Your task to perform on an android device: turn off wifi Image 0: 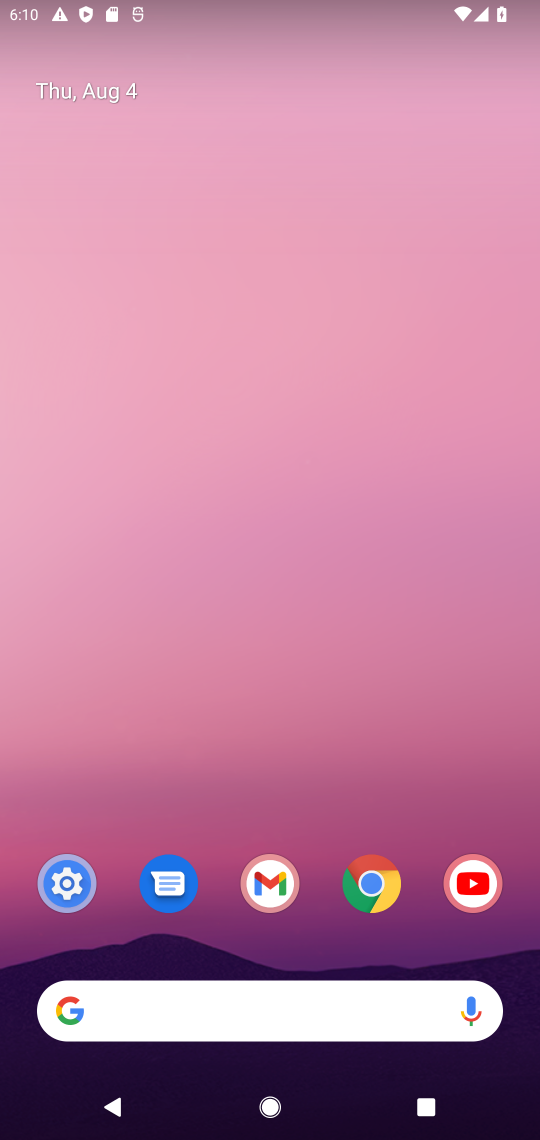
Step 0: click (53, 879)
Your task to perform on an android device: turn off wifi Image 1: 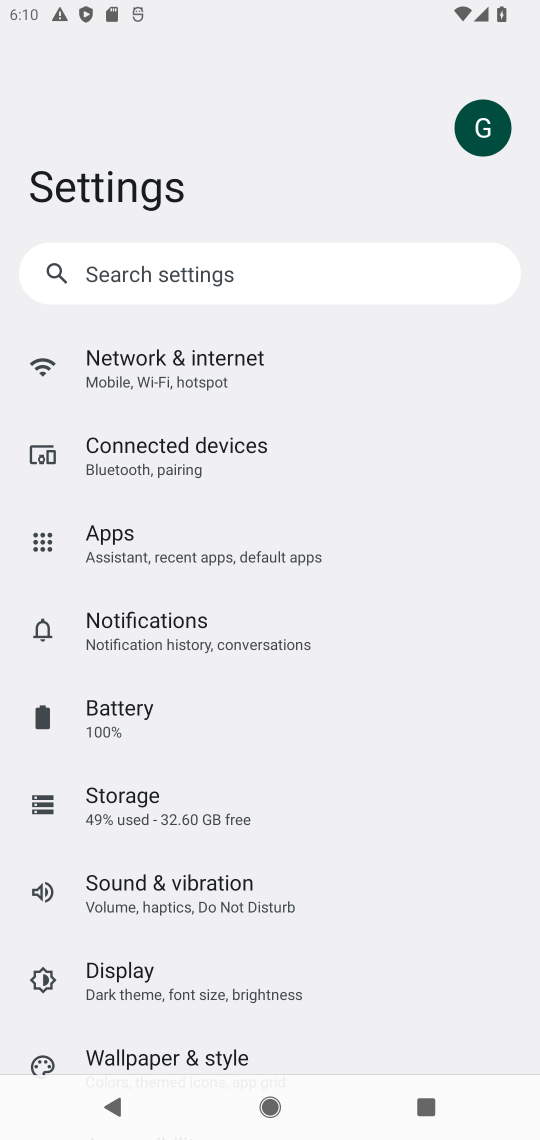
Step 1: click (281, 372)
Your task to perform on an android device: turn off wifi Image 2: 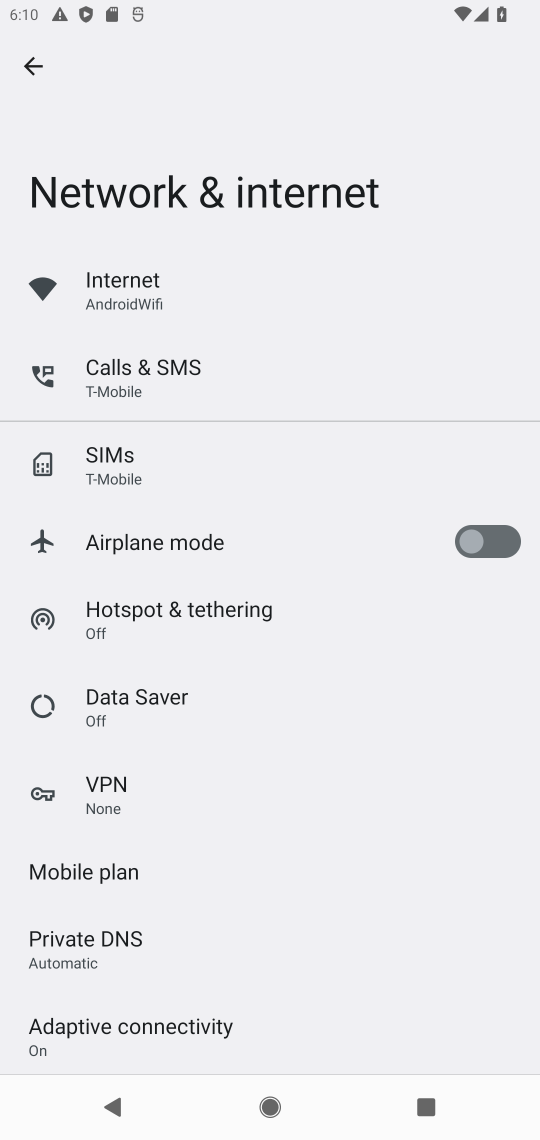
Step 2: click (172, 297)
Your task to perform on an android device: turn off wifi Image 3: 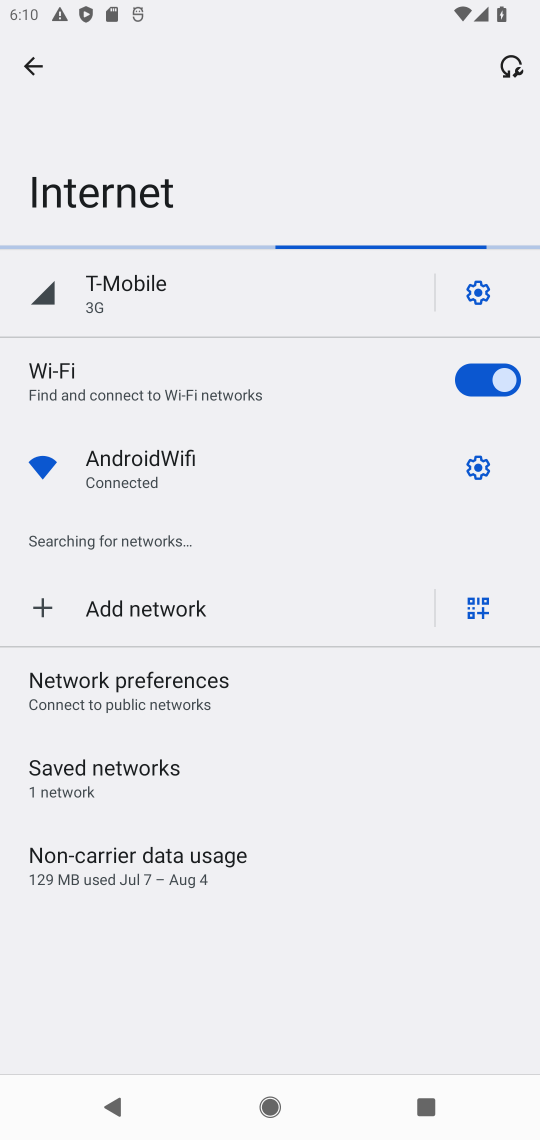
Step 3: click (466, 396)
Your task to perform on an android device: turn off wifi Image 4: 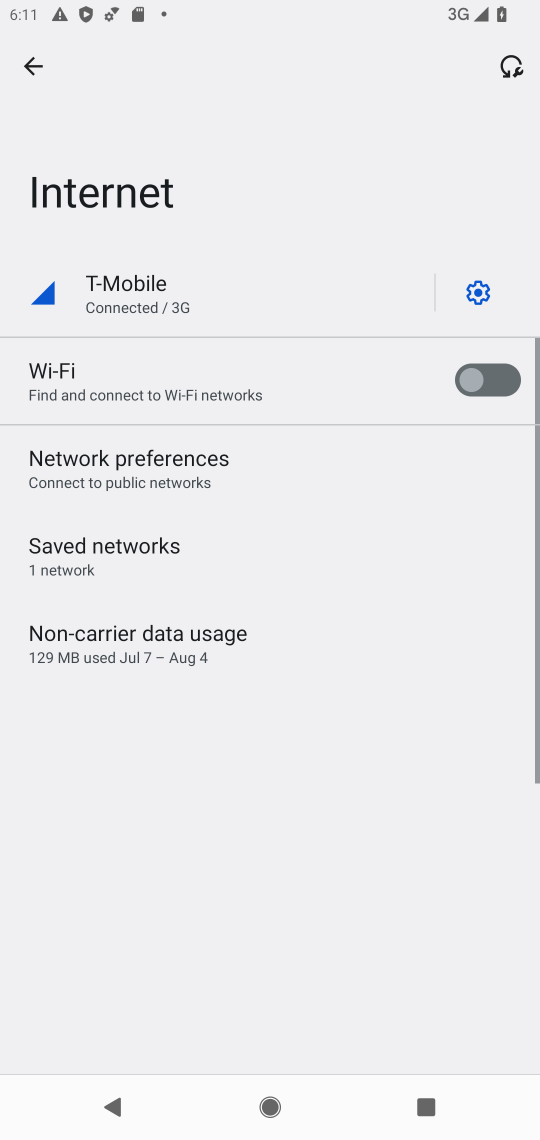
Step 4: task complete